Your task to perform on an android device: find photos in the google photos app Image 0: 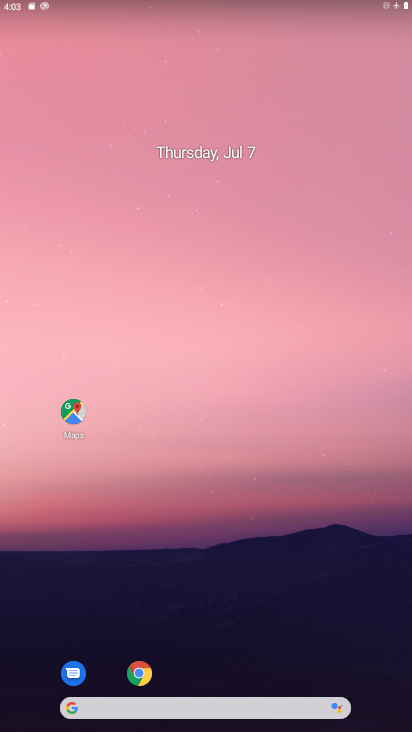
Step 0: press home button
Your task to perform on an android device: find photos in the google photos app Image 1: 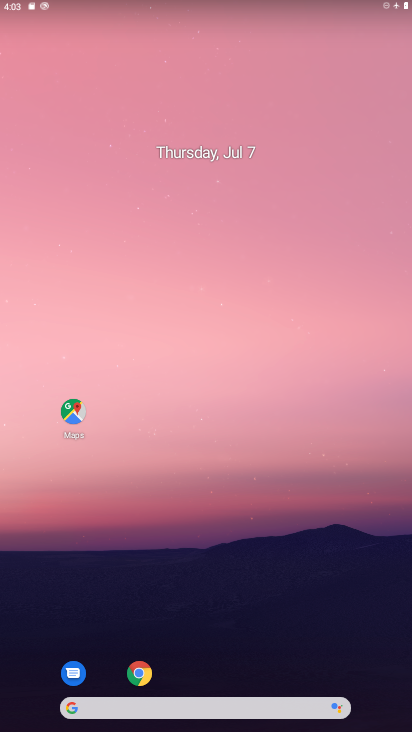
Step 1: drag from (207, 672) to (188, 27)
Your task to perform on an android device: find photos in the google photos app Image 2: 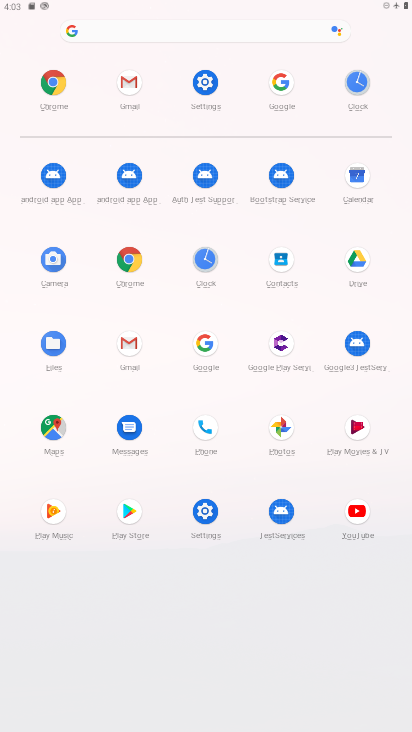
Step 2: click (279, 420)
Your task to perform on an android device: find photos in the google photos app Image 3: 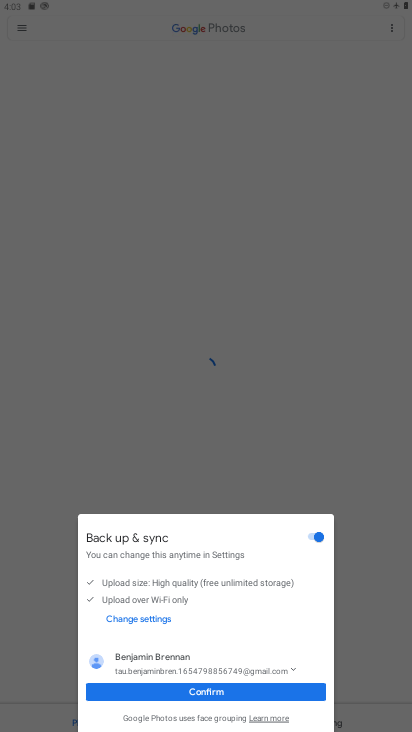
Step 3: click (203, 690)
Your task to perform on an android device: find photos in the google photos app Image 4: 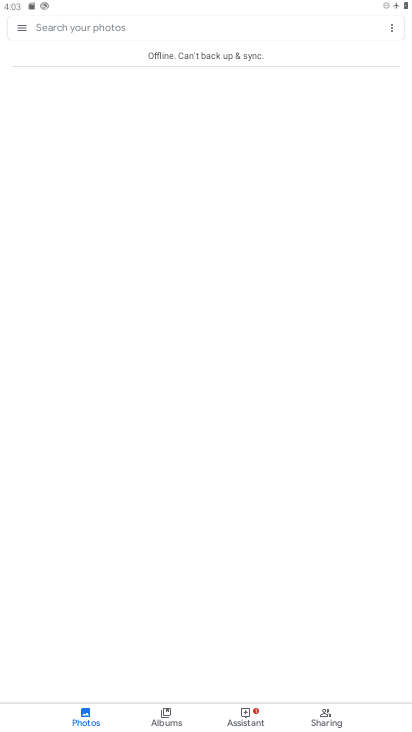
Step 4: task complete